Your task to perform on an android device: toggle location history Image 0: 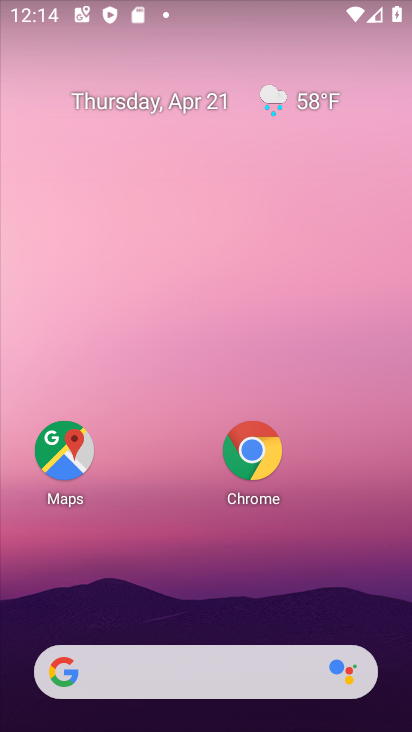
Step 0: drag from (172, 560) to (181, 102)
Your task to perform on an android device: toggle location history Image 1: 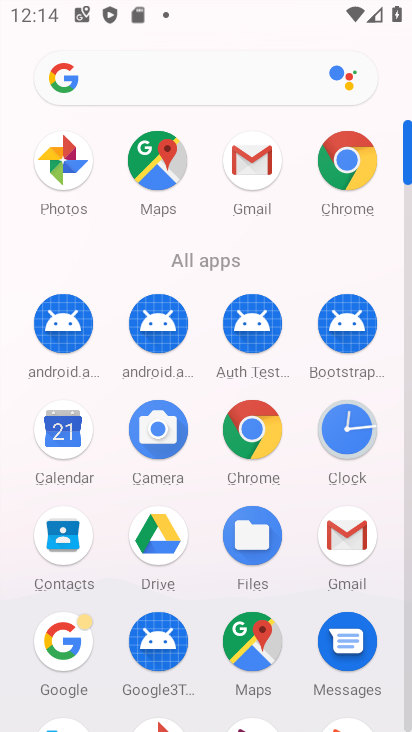
Step 1: drag from (219, 560) to (222, 215)
Your task to perform on an android device: toggle location history Image 2: 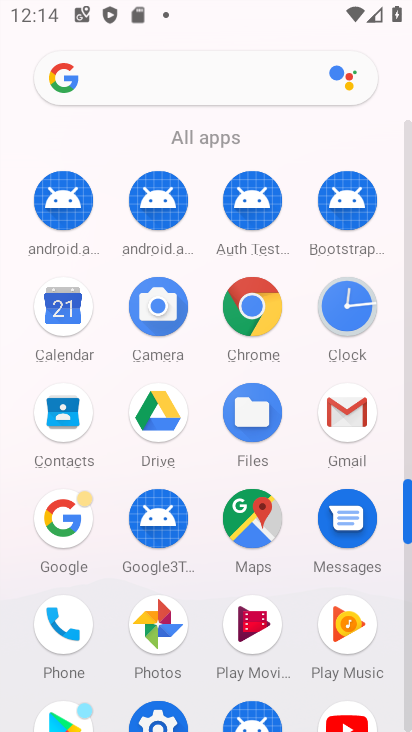
Step 2: click (168, 720)
Your task to perform on an android device: toggle location history Image 3: 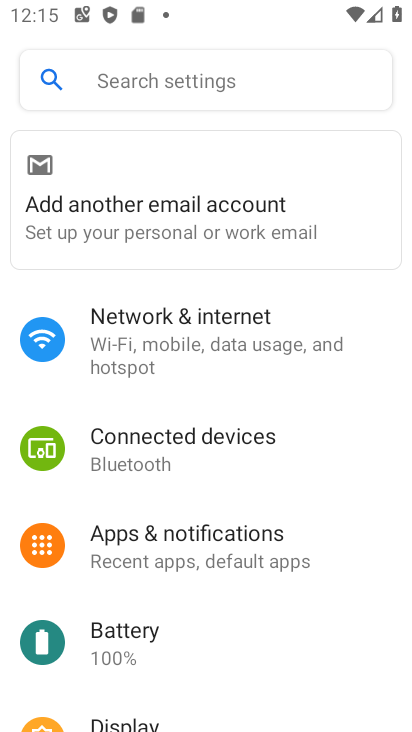
Step 3: drag from (133, 672) to (146, 213)
Your task to perform on an android device: toggle location history Image 4: 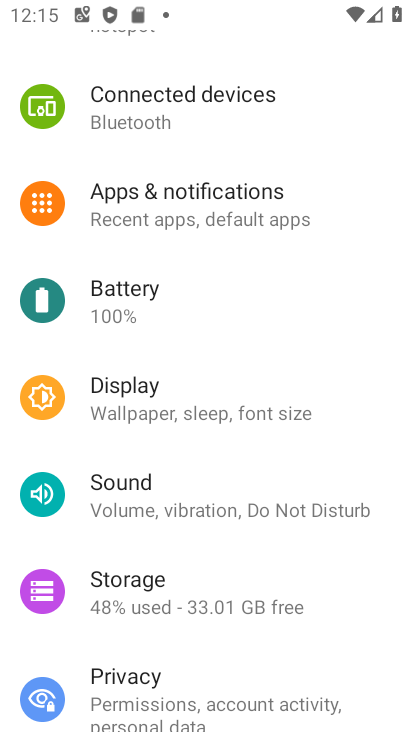
Step 4: drag from (142, 553) to (119, 89)
Your task to perform on an android device: toggle location history Image 5: 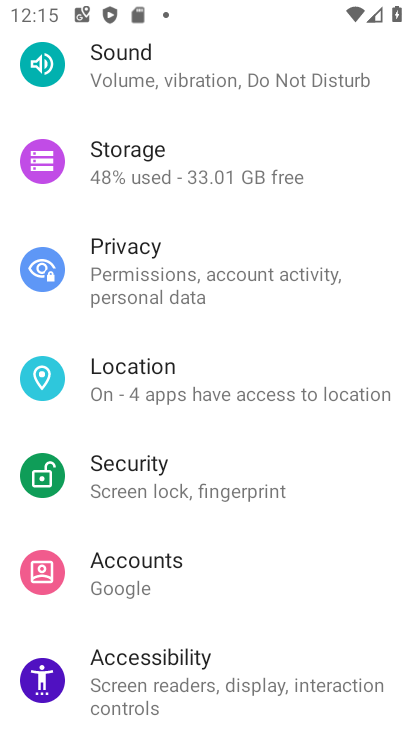
Step 5: click (110, 395)
Your task to perform on an android device: toggle location history Image 6: 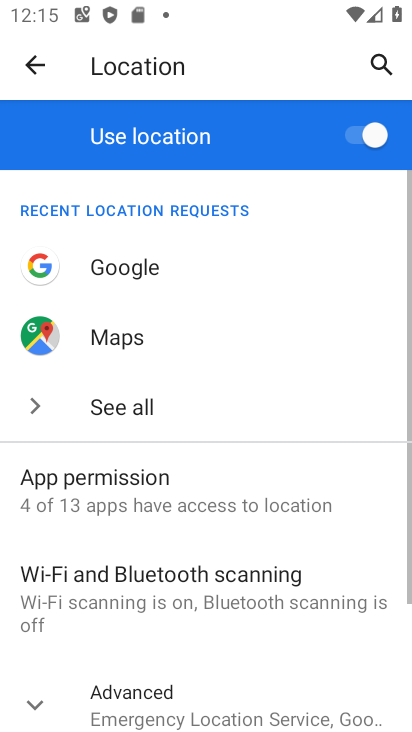
Step 6: drag from (227, 681) to (195, 100)
Your task to perform on an android device: toggle location history Image 7: 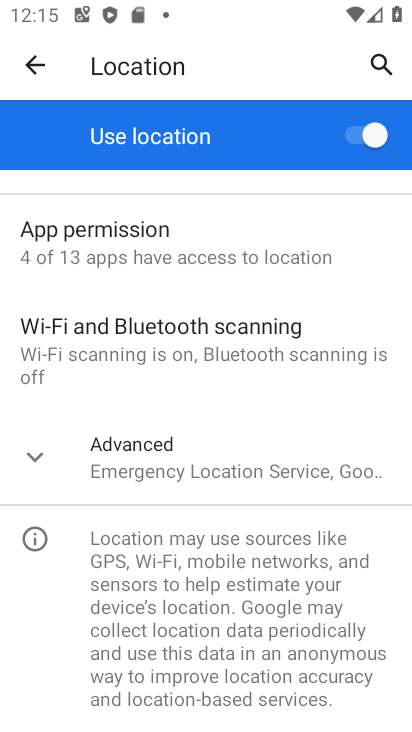
Step 7: click (168, 474)
Your task to perform on an android device: toggle location history Image 8: 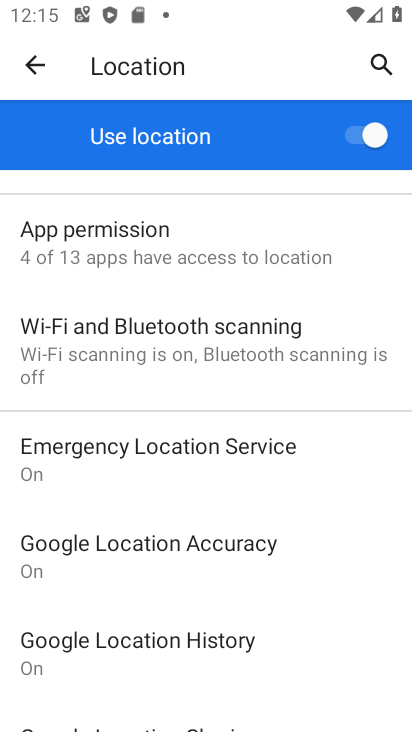
Step 8: click (246, 649)
Your task to perform on an android device: toggle location history Image 9: 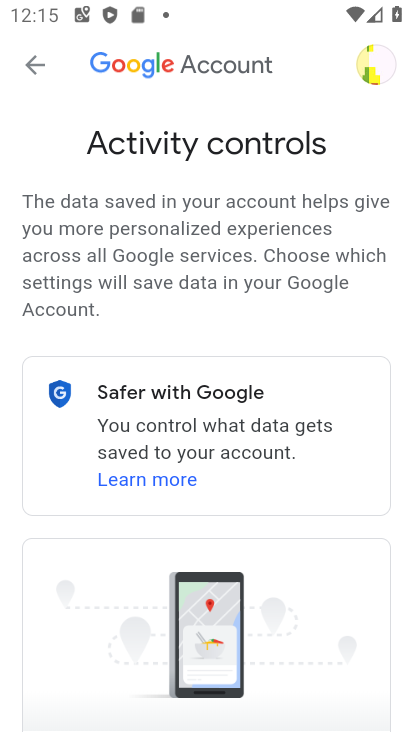
Step 9: drag from (123, 686) to (179, 252)
Your task to perform on an android device: toggle location history Image 10: 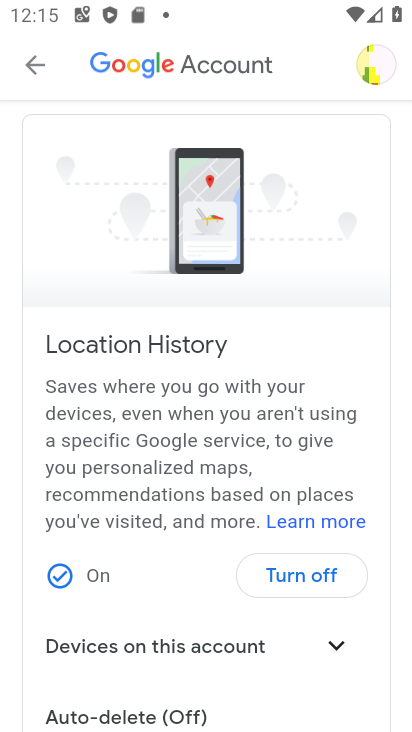
Step 10: click (341, 566)
Your task to perform on an android device: toggle location history Image 11: 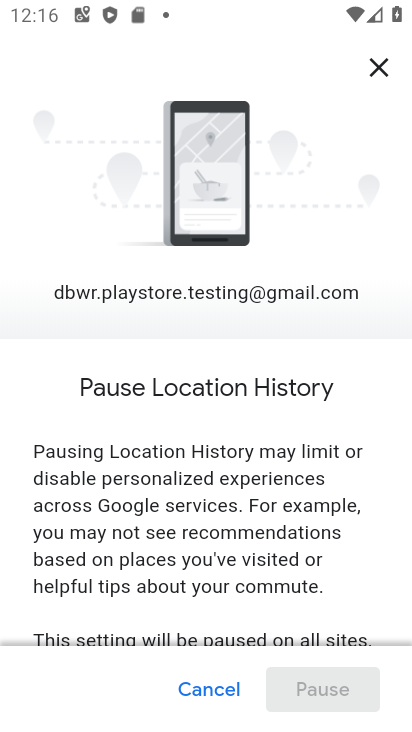
Step 11: drag from (210, 571) to (244, 68)
Your task to perform on an android device: toggle location history Image 12: 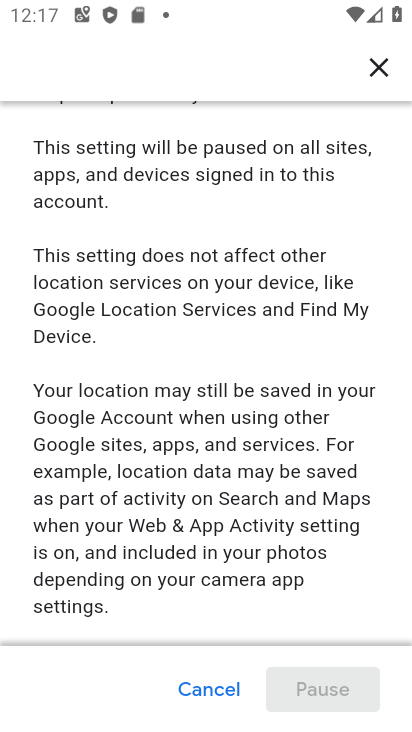
Step 12: drag from (220, 579) to (199, 122)
Your task to perform on an android device: toggle location history Image 13: 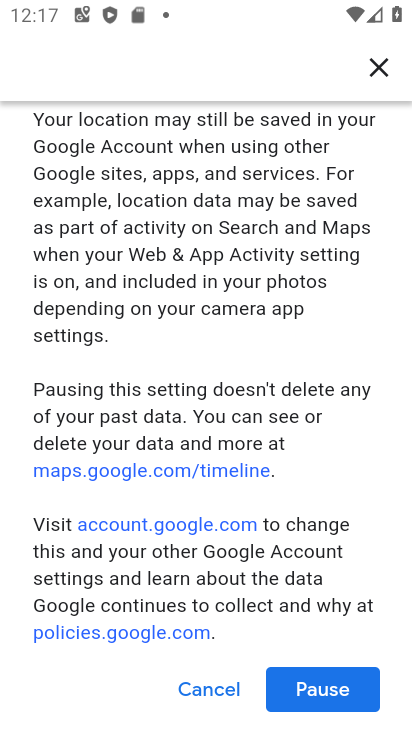
Step 13: click (347, 686)
Your task to perform on an android device: toggle location history Image 14: 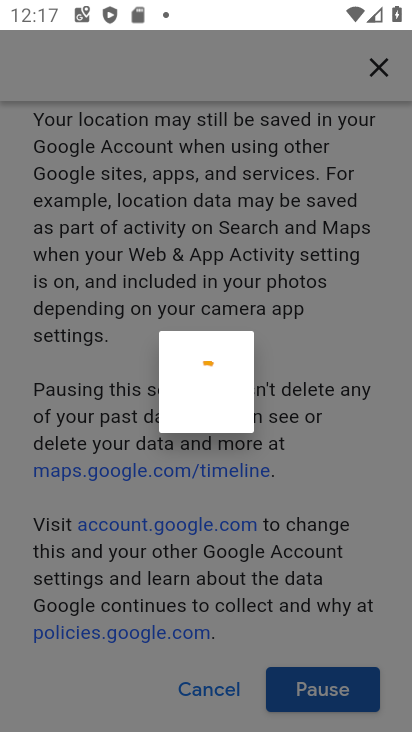
Step 14: click (350, 685)
Your task to perform on an android device: toggle location history Image 15: 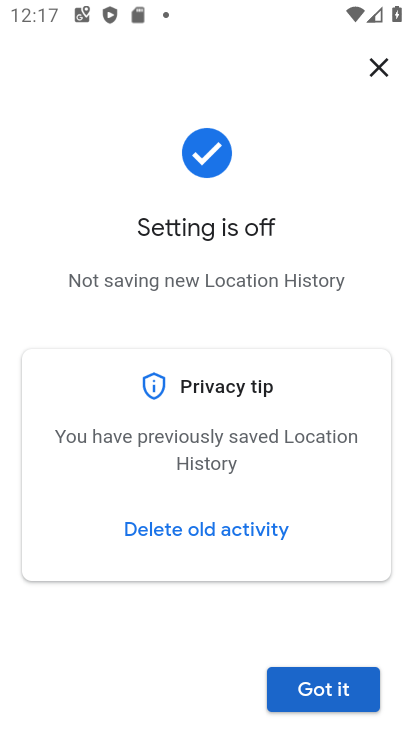
Step 15: click (350, 685)
Your task to perform on an android device: toggle location history Image 16: 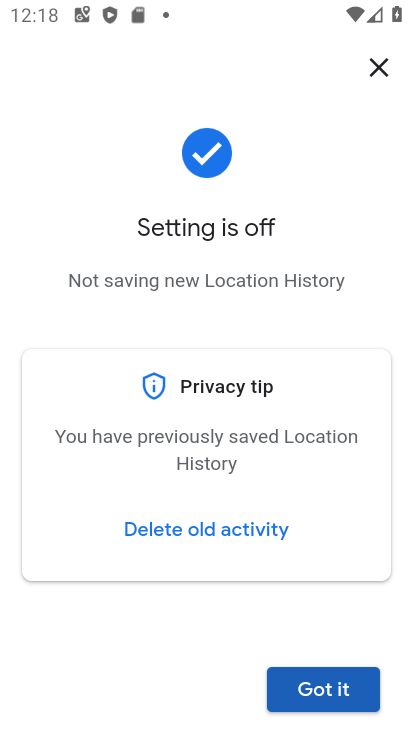
Step 16: click (308, 676)
Your task to perform on an android device: toggle location history Image 17: 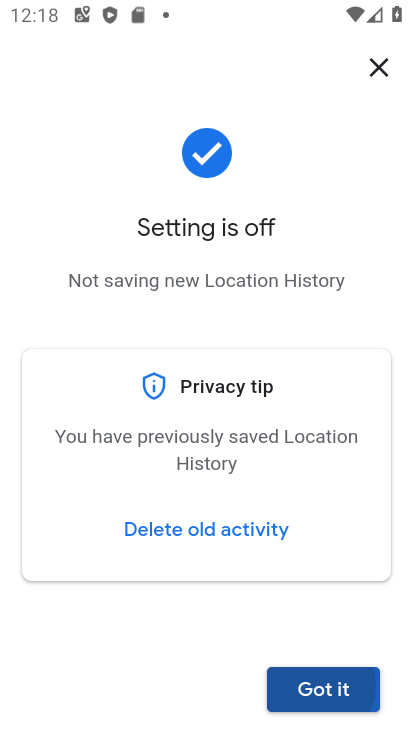
Step 17: task complete